Your task to perform on an android device: Do I have any events this weekend? Image 0: 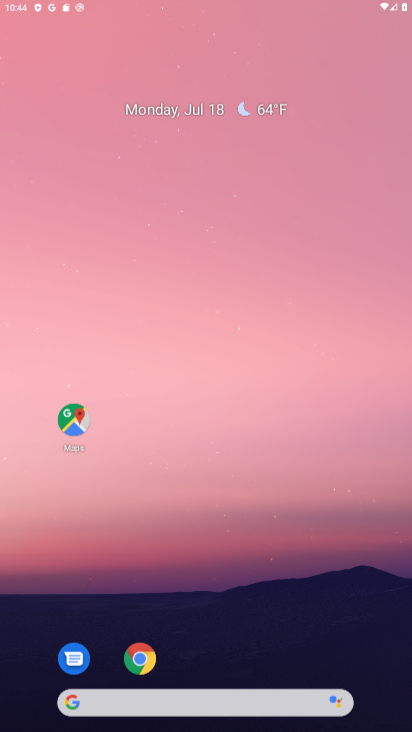
Step 0: press home button
Your task to perform on an android device: Do I have any events this weekend? Image 1: 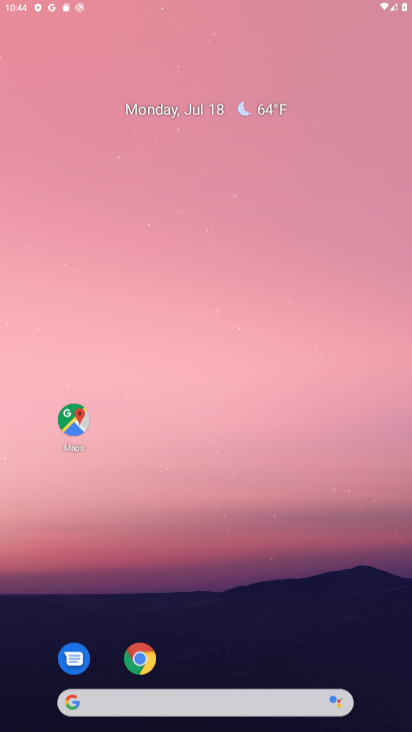
Step 1: click (261, 102)
Your task to perform on an android device: Do I have any events this weekend? Image 2: 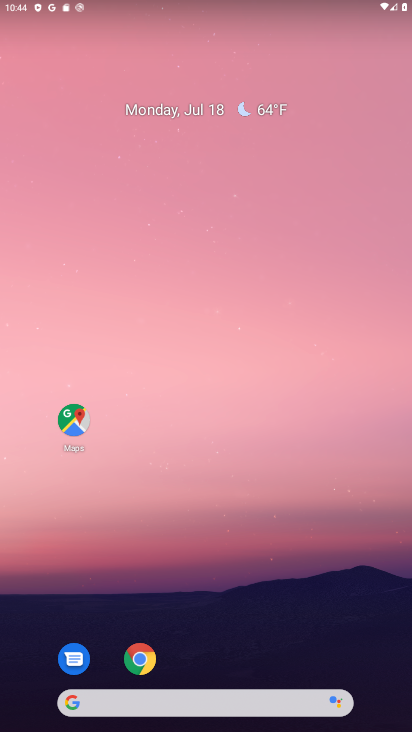
Step 2: drag from (280, 675) to (21, 6)
Your task to perform on an android device: Do I have any events this weekend? Image 3: 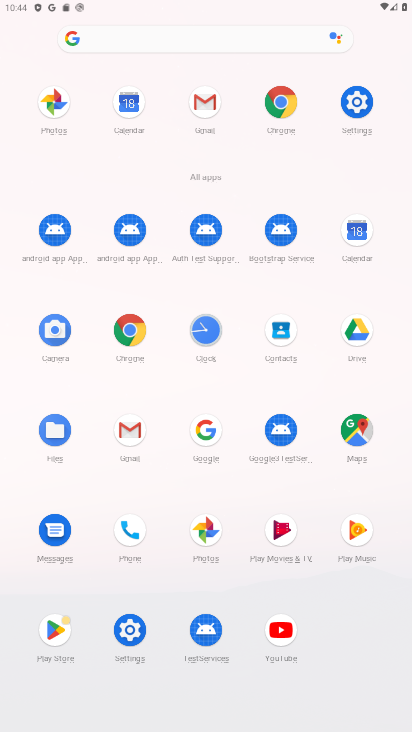
Step 3: click (359, 230)
Your task to perform on an android device: Do I have any events this weekend? Image 4: 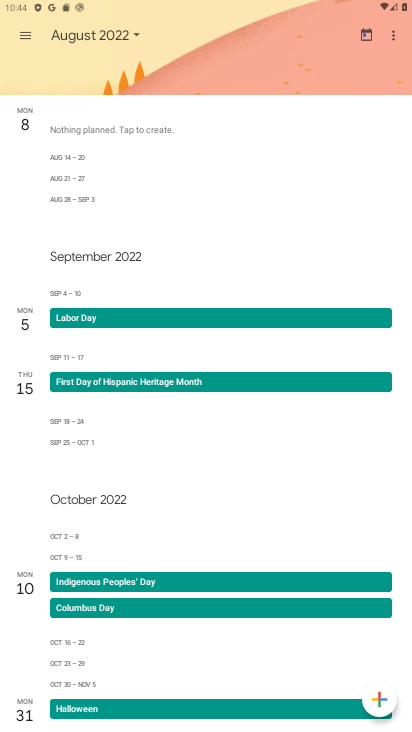
Step 4: click (133, 36)
Your task to perform on an android device: Do I have any events this weekend? Image 5: 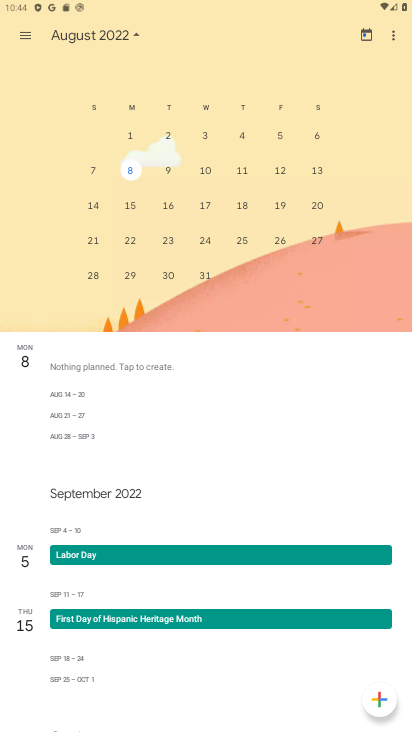
Step 5: drag from (34, 186) to (390, 175)
Your task to perform on an android device: Do I have any events this weekend? Image 6: 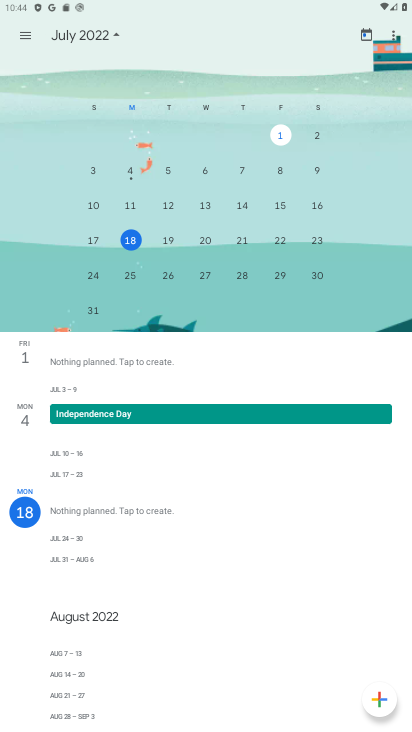
Step 6: click (91, 273)
Your task to perform on an android device: Do I have any events this weekend? Image 7: 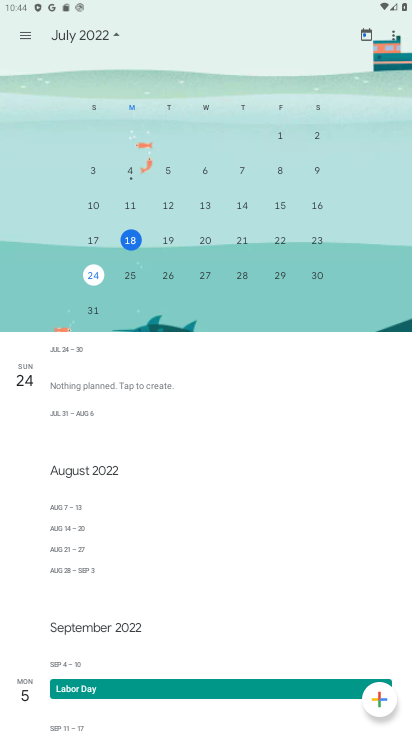
Step 7: click (91, 273)
Your task to perform on an android device: Do I have any events this weekend? Image 8: 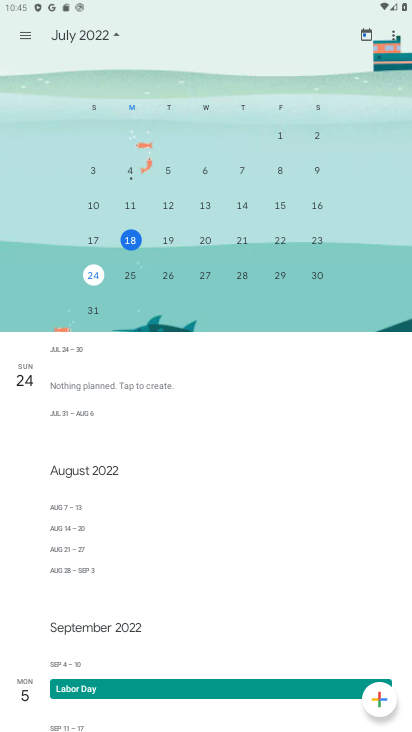
Step 8: click (114, 37)
Your task to perform on an android device: Do I have any events this weekend? Image 9: 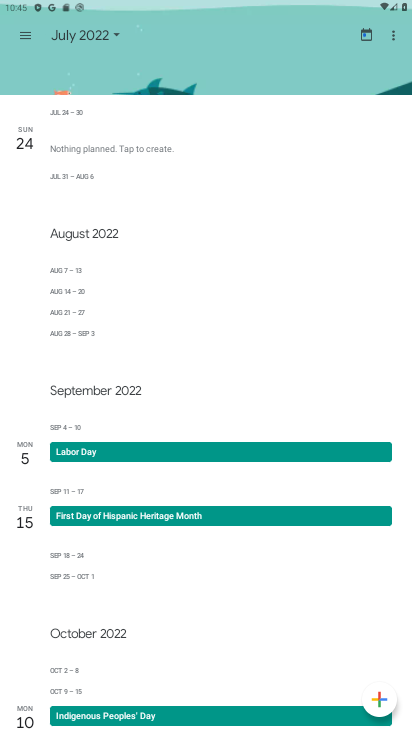
Step 9: task complete